Your task to perform on an android device: turn off notifications settings in the gmail app Image 0: 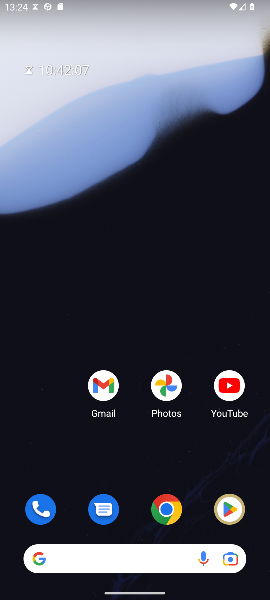
Step 0: press home button
Your task to perform on an android device: turn off notifications settings in the gmail app Image 1: 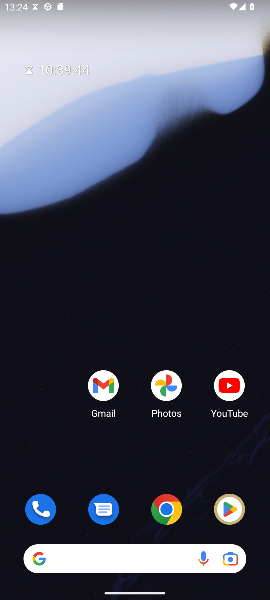
Step 1: click (104, 394)
Your task to perform on an android device: turn off notifications settings in the gmail app Image 2: 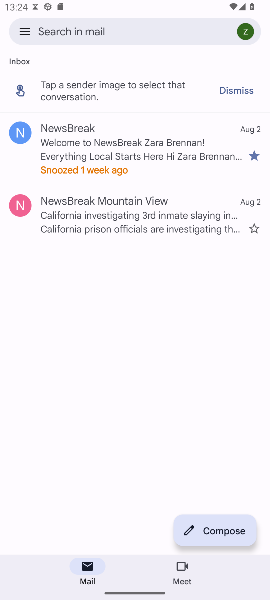
Step 2: click (29, 33)
Your task to perform on an android device: turn off notifications settings in the gmail app Image 3: 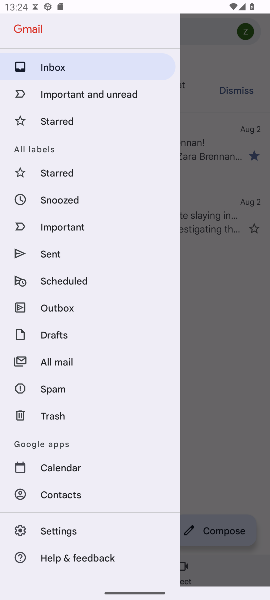
Step 3: click (52, 529)
Your task to perform on an android device: turn off notifications settings in the gmail app Image 4: 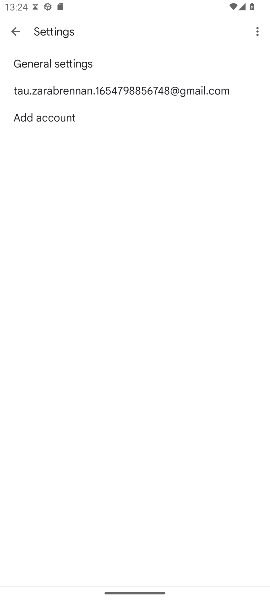
Step 4: click (78, 89)
Your task to perform on an android device: turn off notifications settings in the gmail app Image 5: 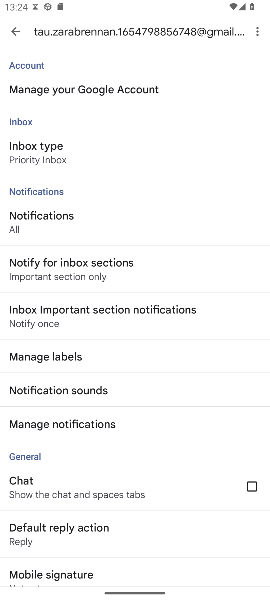
Step 5: click (56, 429)
Your task to perform on an android device: turn off notifications settings in the gmail app Image 6: 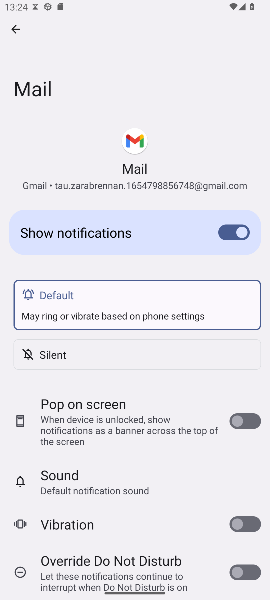
Step 6: click (242, 233)
Your task to perform on an android device: turn off notifications settings in the gmail app Image 7: 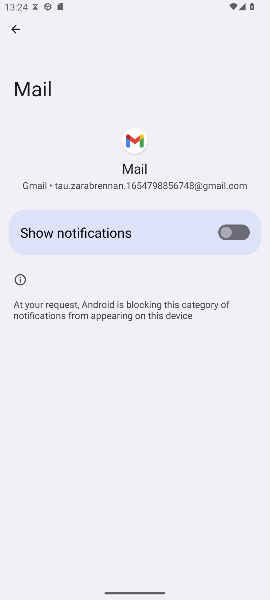
Step 7: task complete